Your task to perform on an android device: Go to Wikipedia Image 0: 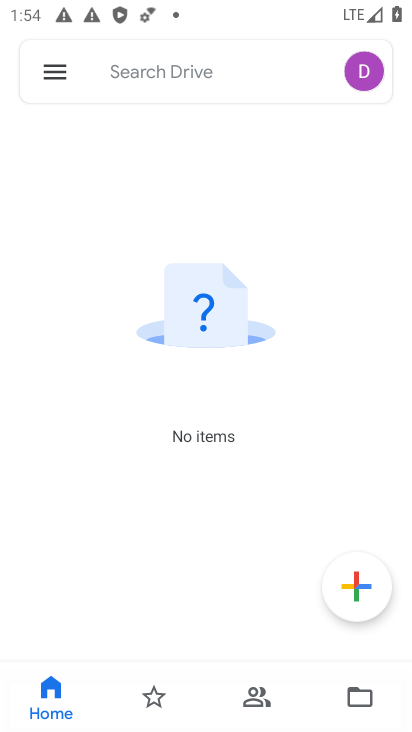
Step 0: press back button
Your task to perform on an android device: Go to Wikipedia Image 1: 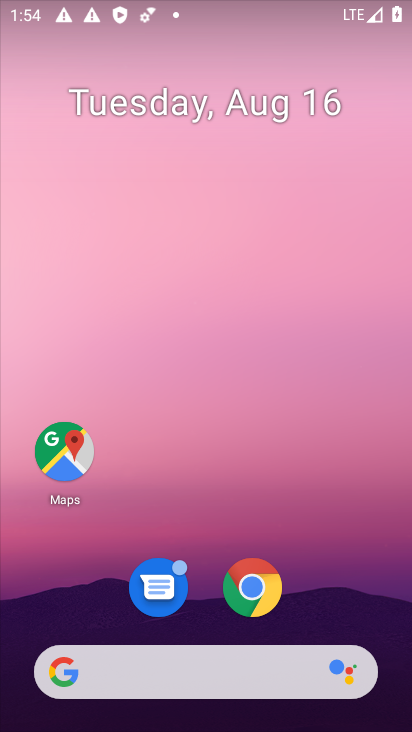
Step 1: click (254, 579)
Your task to perform on an android device: Go to Wikipedia Image 2: 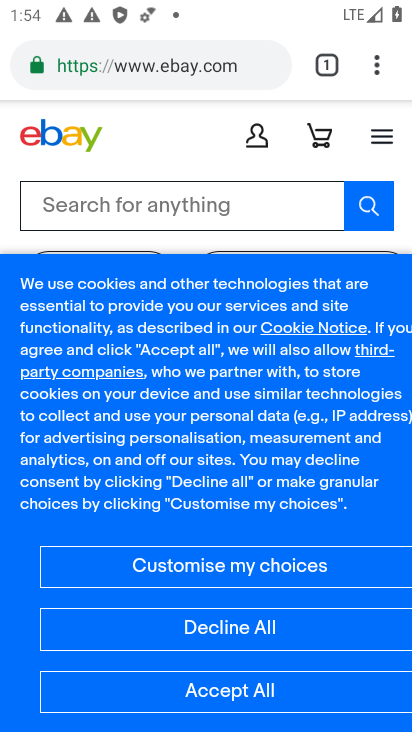
Step 2: click (328, 60)
Your task to perform on an android device: Go to Wikipedia Image 3: 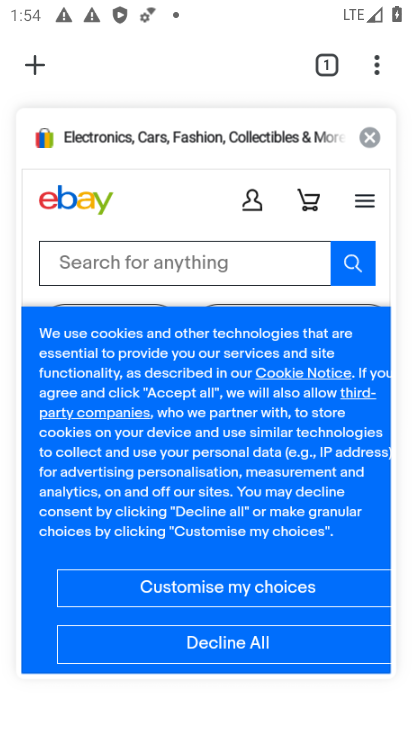
Step 3: click (26, 69)
Your task to perform on an android device: Go to Wikipedia Image 4: 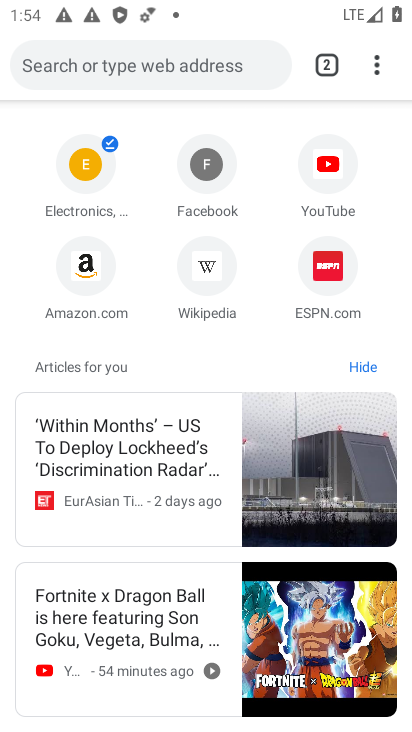
Step 4: click (205, 266)
Your task to perform on an android device: Go to Wikipedia Image 5: 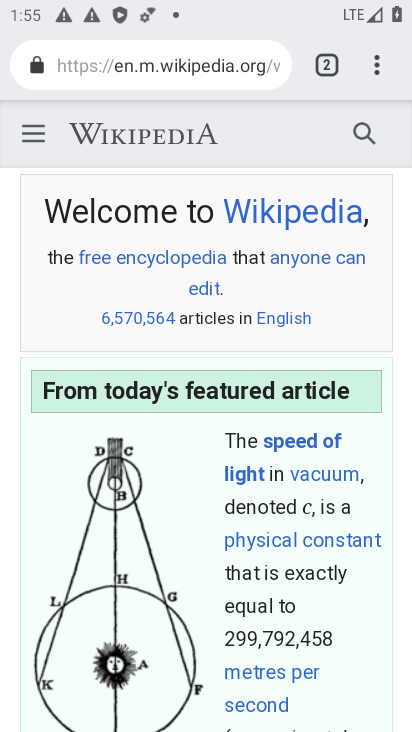
Step 5: task complete